Your task to perform on an android device: make emails show in primary in the gmail app Image 0: 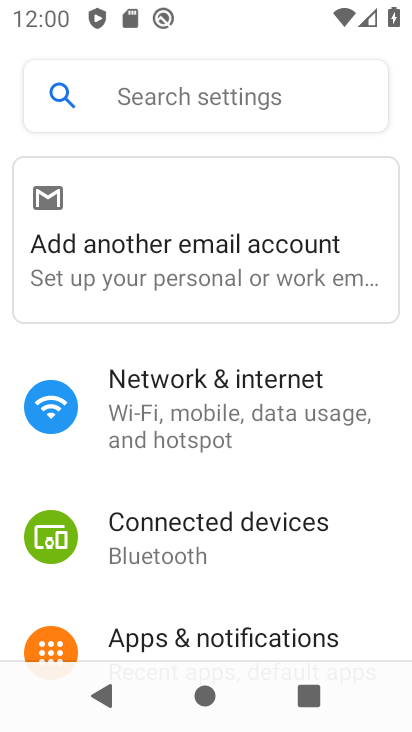
Step 0: press back button
Your task to perform on an android device: make emails show in primary in the gmail app Image 1: 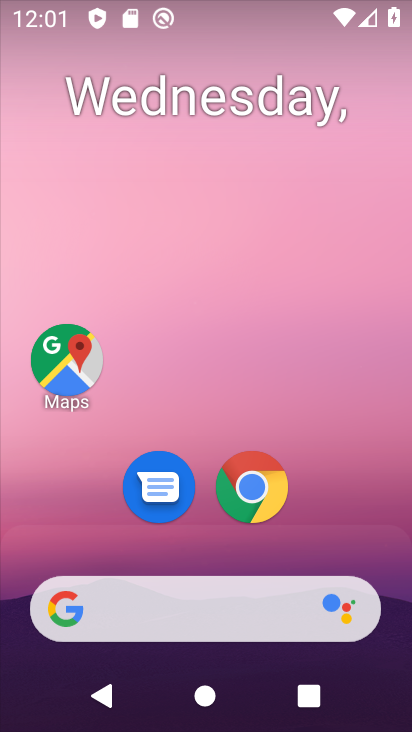
Step 1: drag from (214, 412) to (259, 75)
Your task to perform on an android device: make emails show in primary in the gmail app Image 2: 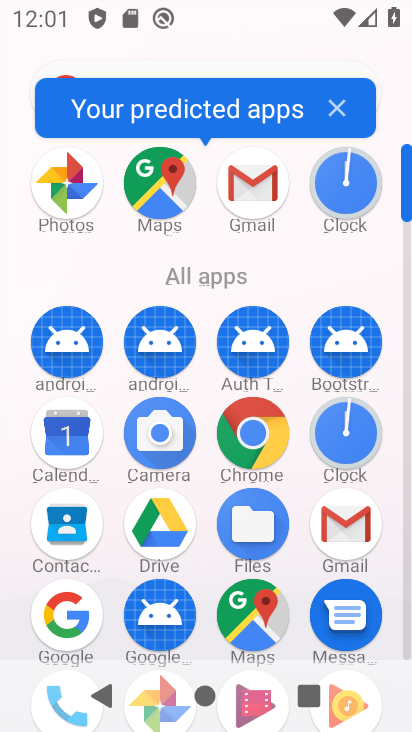
Step 2: click (242, 179)
Your task to perform on an android device: make emails show in primary in the gmail app Image 3: 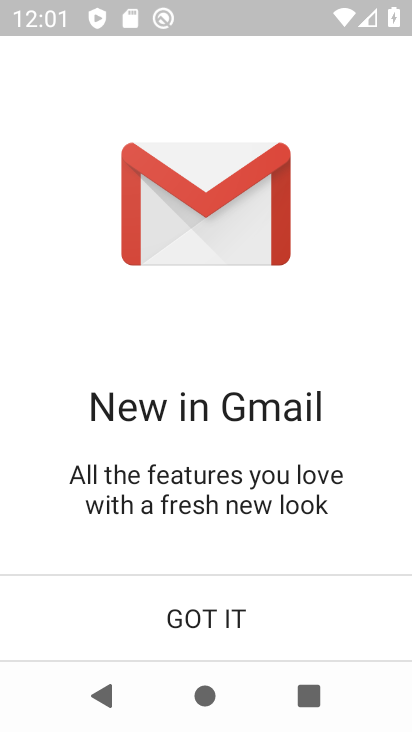
Step 3: click (170, 598)
Your task to perform on an android device: make emails show in primary in the gmail app Image 4: 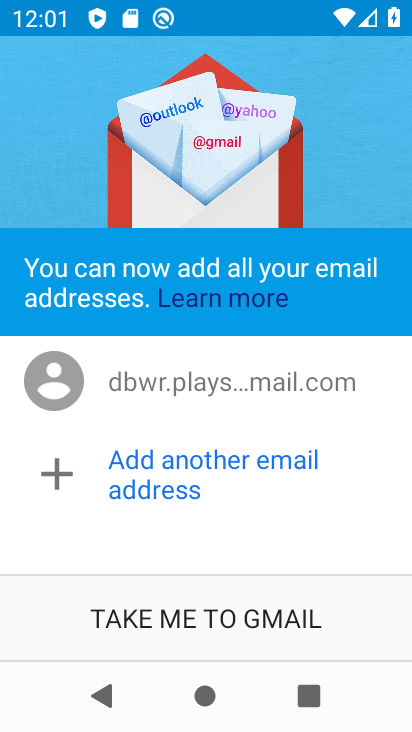
Step 4: click (196, 625)
Your task to perform on an android device: make emails show in primary in the gmail app Image 5: 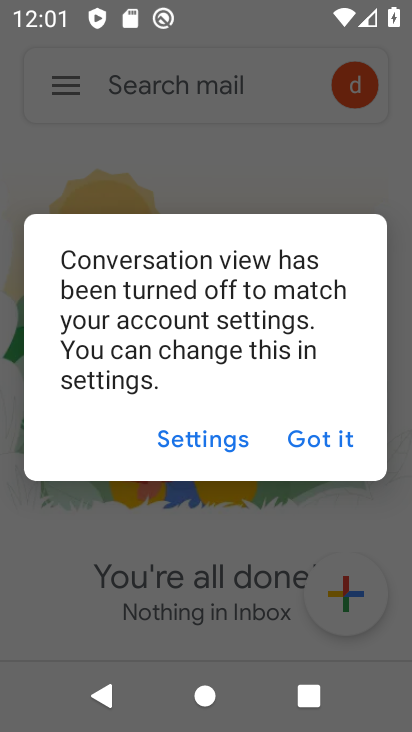
Step 5: click (316, 427)
Your task to perform on an android device: make emails show in primary in the gmail app Image 6: 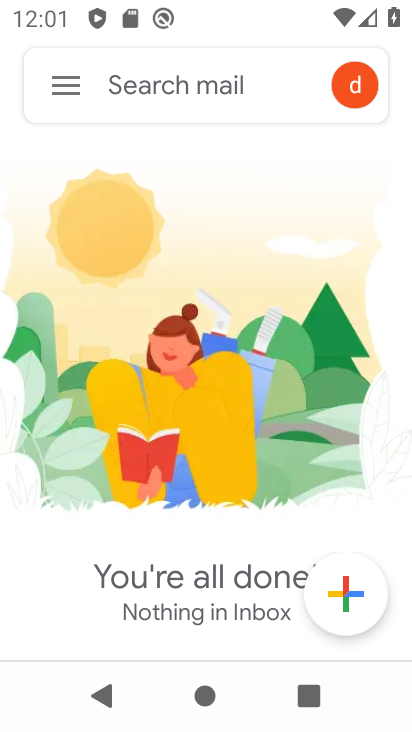
Step 6: click (54, 83)
Your task to perform on an android device: make emails show in primary in the gmail app Image 7: 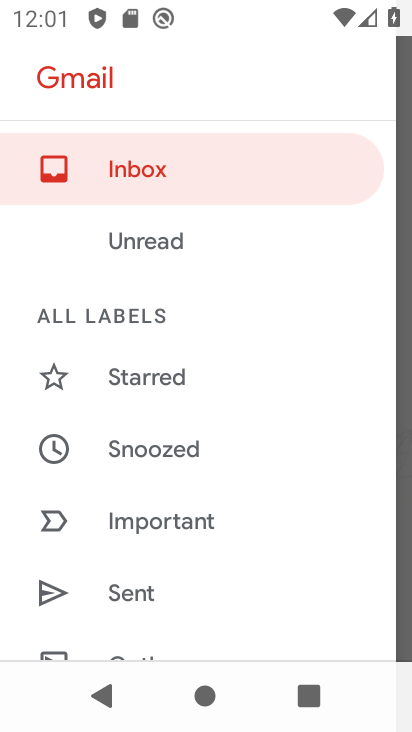
Step 7: drag from (213, 583) to (231, 224)
Your task to perform on an android device: make emails show in primary in the gmail app Image 8: 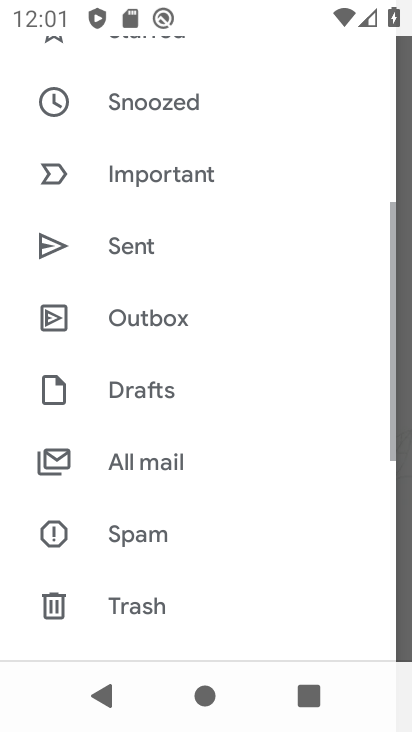
Step 8: drag from (171, 577) to (194, 80)
Your task to perform on an android device: make emails show in primary in the gmail app Image 9: 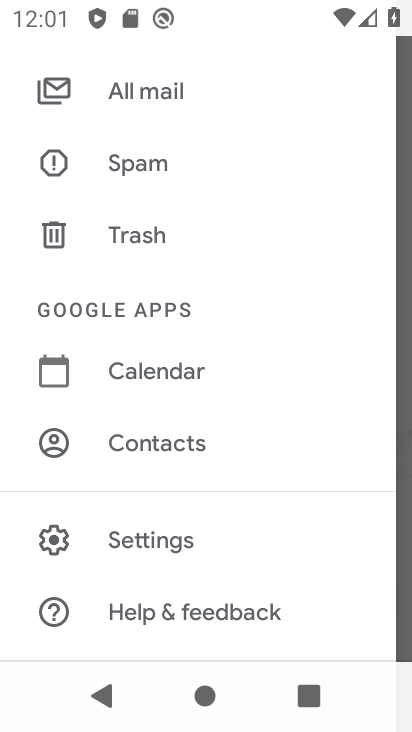
Step 9: click (141, 535)
Your task to perform on an android device: make emails show in primary in the gmail app Image 10: 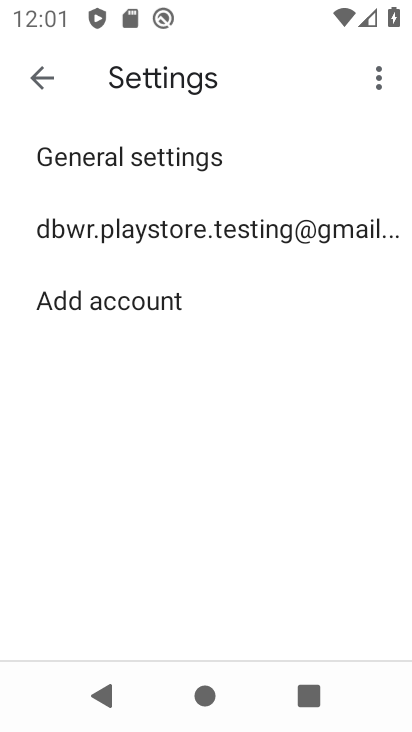
Step 10: click (129, 230)
Your task to perform on an android device: make emails show in primary in the gmail app Image 11: 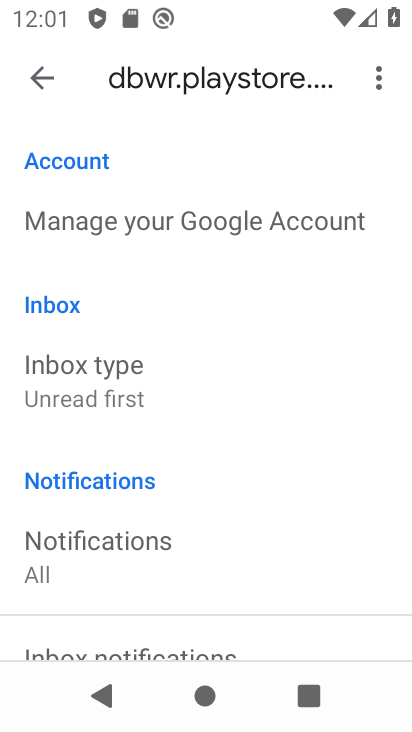
Step 11: task complete